Your task to perform on an android device: open a bookmark in the chrome app Image 0: 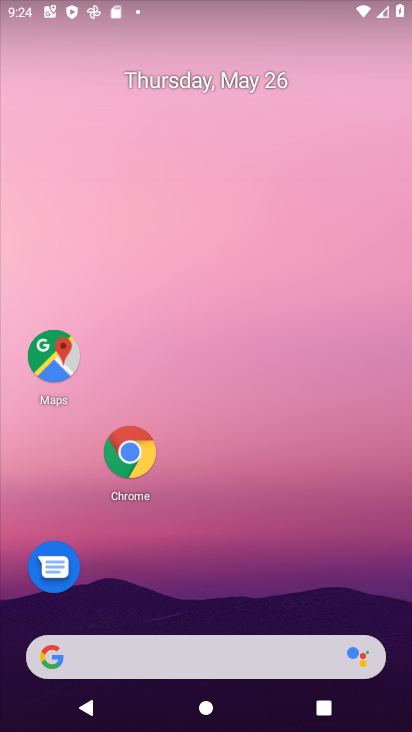
Step 0: press home button
Your task to perform on an android device: open a bookmark in the chrome app Image 1: 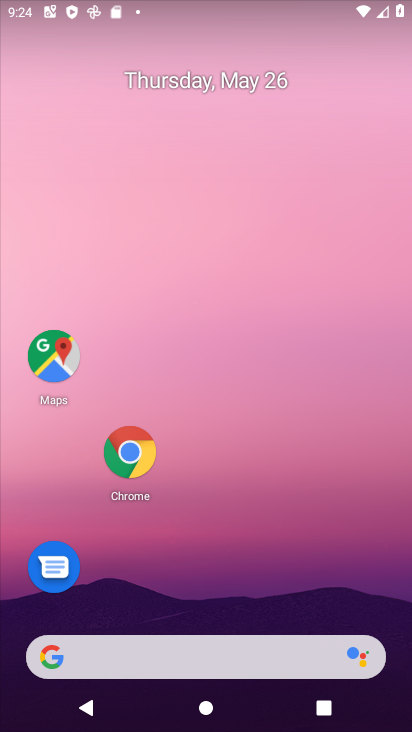
Step 1: click (134, 464)
Your task to perform on an android device: open a bookmark in the chrome app Image 2: 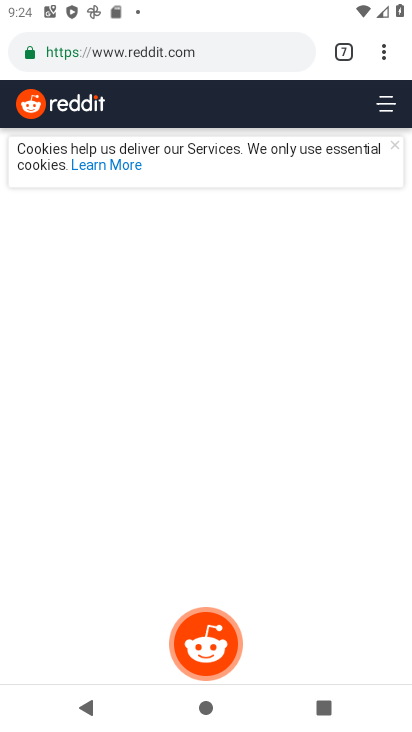
Step 2: task complete